Your task to perform on an android device: Go to Maps Image 0: 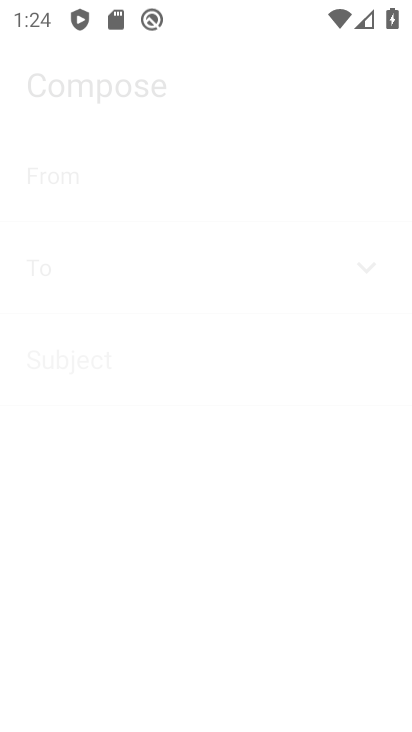
Step 0: click (279, 563)
Your task to perform on an android device: Go to Maps Image 1: 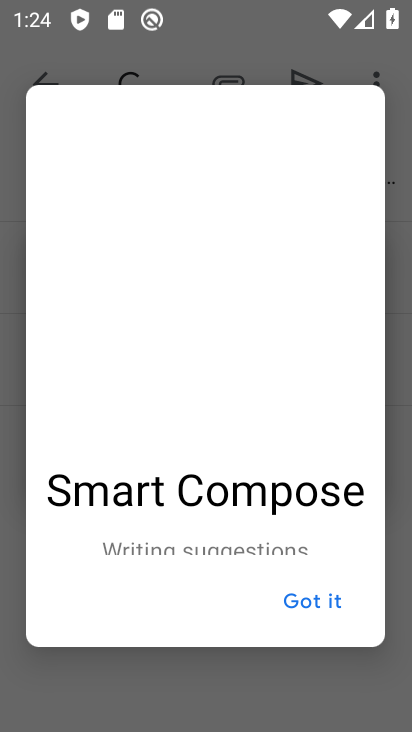
Step 1: press home button
Your task to perform on an android device: Go to Maps Image 2: 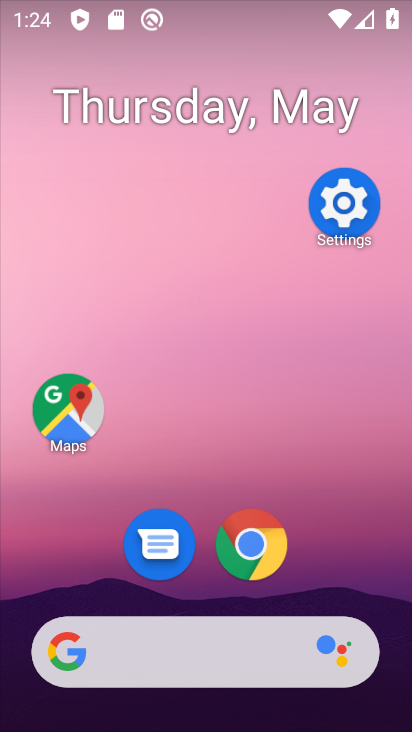
Step 2: click (62, 406)
Your task to perform on an android device: Go to Maps Image 3: 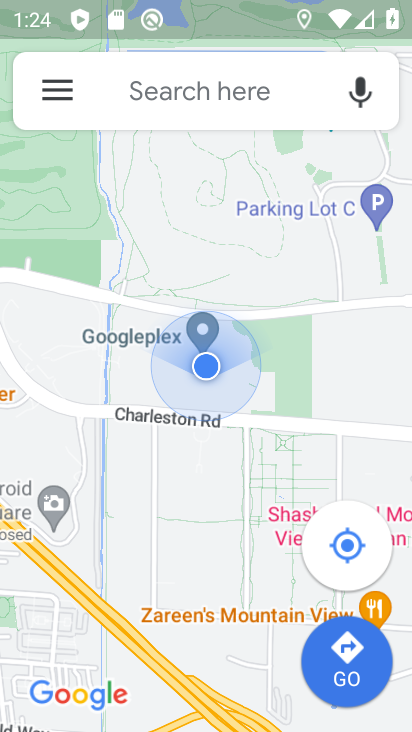
Step 3: task complete